Your task to perform on an android device: add a contact in the contacts app Image 0: 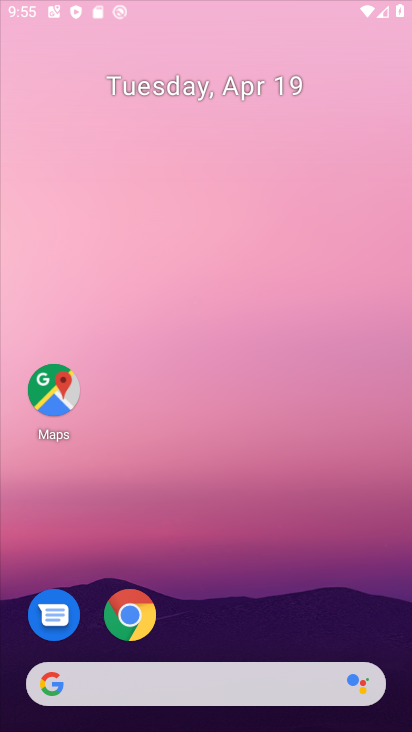
Step 0: drag from (337, 217) to (345, 87)
Your task to perform on an android device: add a contact in the contacts app Image 1: 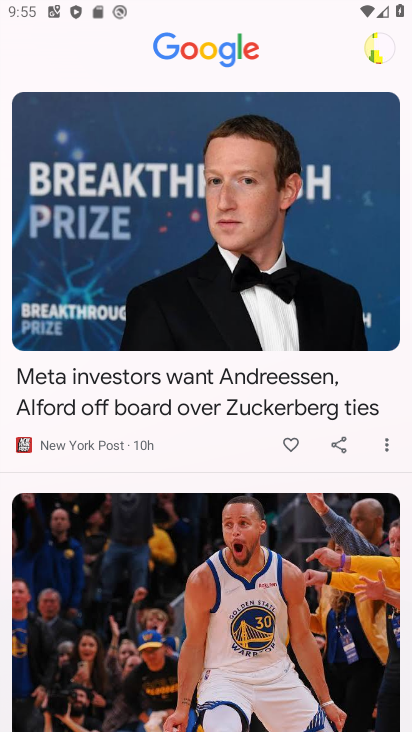
Step 1: drag from (216, 635) to (318, 134)
Your task to perform on an android device: add a contact in the contacts app Image 2: 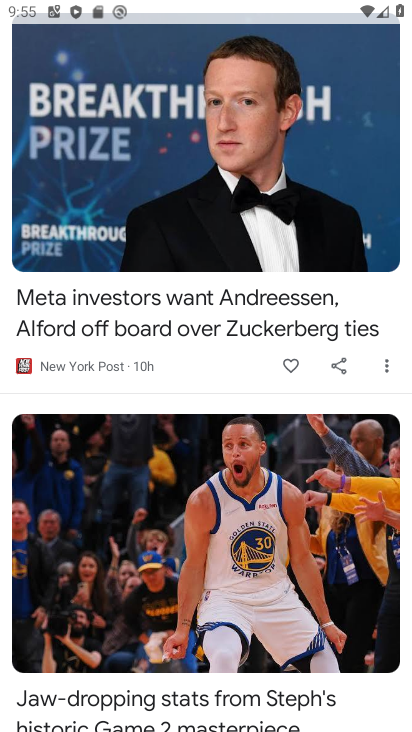
Step 2: drag from (280, 170) to (344, 726)
Your task to perform on an android device: add a contact in the contacts app Image 3: 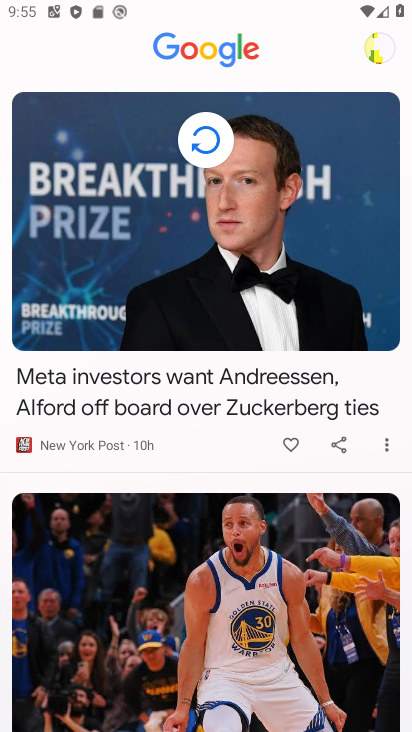
Step 3: press home button
Your task to perform on an android device: add a contact in the contacts app Image 4: 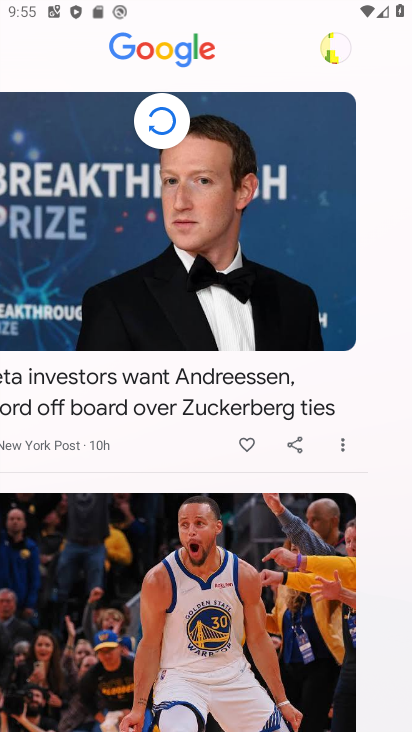
Step 4: click (412, 448)
Your task to perform on an android device: add a contact in the contacts app Image 5: 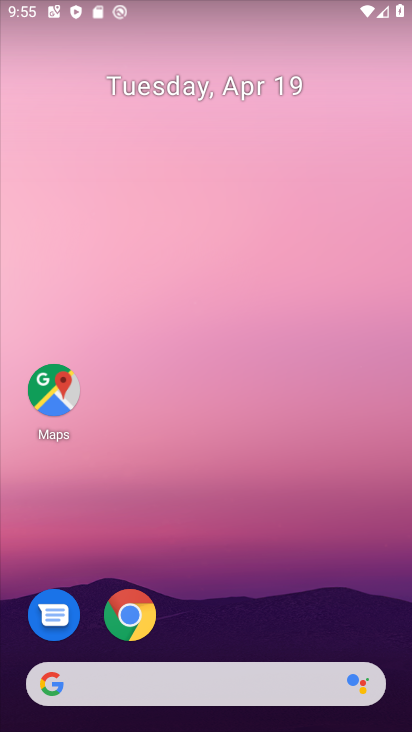
Step 5: drag from (236, 644) to (380, 74)
Your task to perform on an android device: add a contact in the contacts app Image 6: 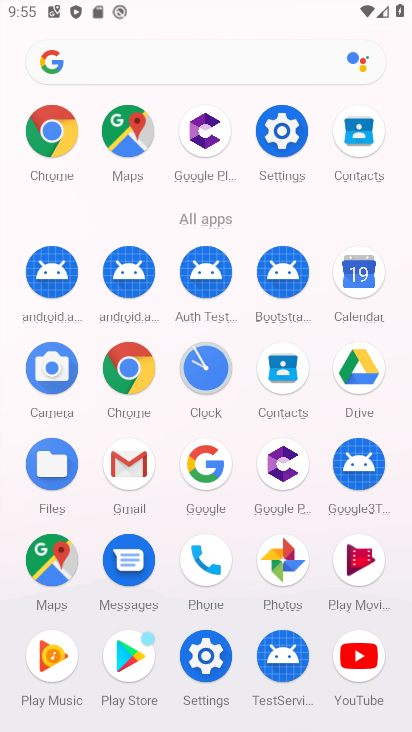
Step 6: click (286, 363)
Your task to perform on an android device: add a contact in the contacts app Image 7: 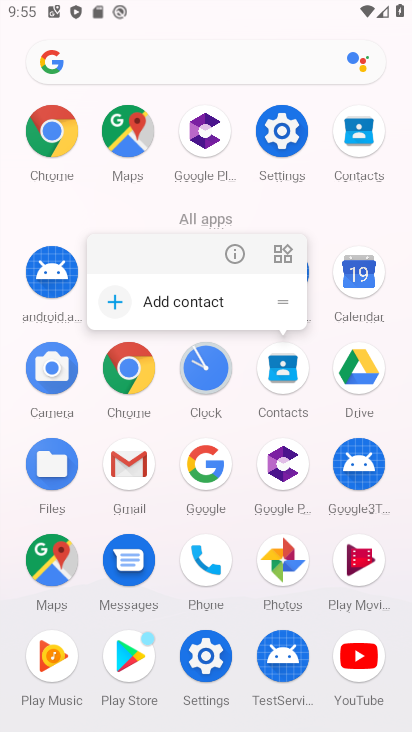
Step 7: click (242, 257)
Your task to perform on an android device: add a contact in the contacts app Image 8: 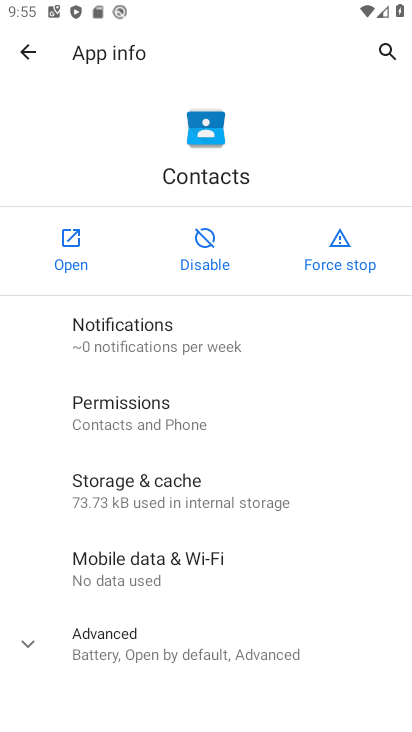
Step 8: click (87, 262)
Your task to perform on an android device: add a contact in the contacts app Image 9: 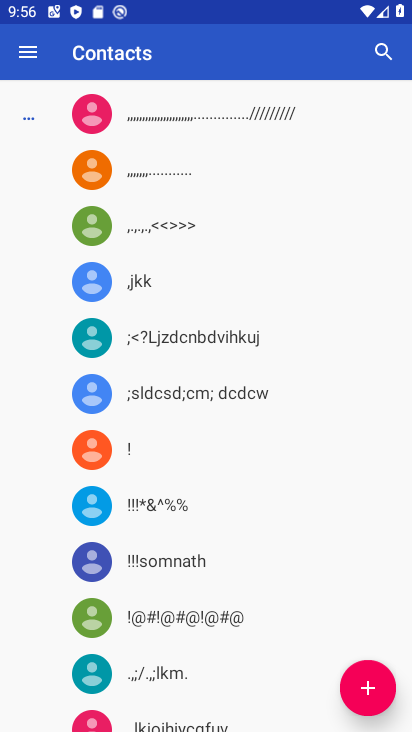
Step 9: click (362, 662)
Your task to perform on an android device: add a contact in the contacts app Image 10: 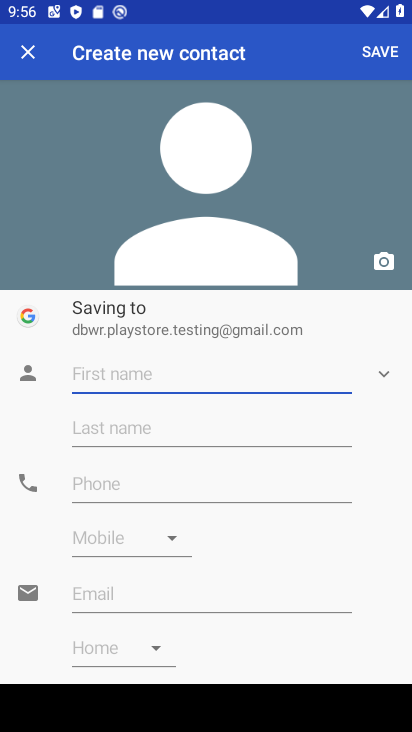
Step 10: click (148, 369)
Your task to perform on an android device: add a contact in the contacts app Image 11: 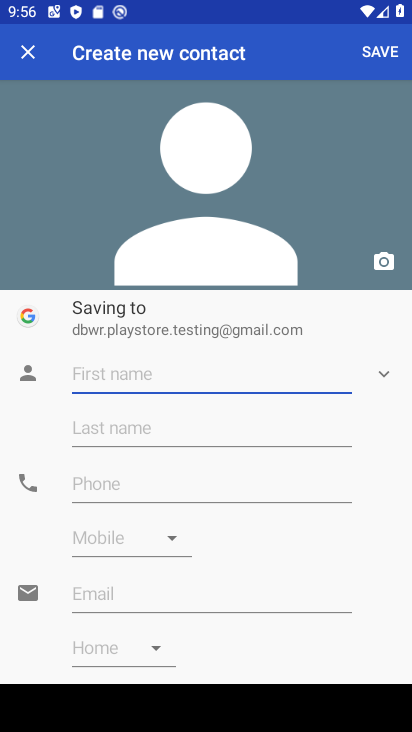
Step 11: click (157, 366)
Your task to perform on an android device: add a contact in the contacts app Image 12: 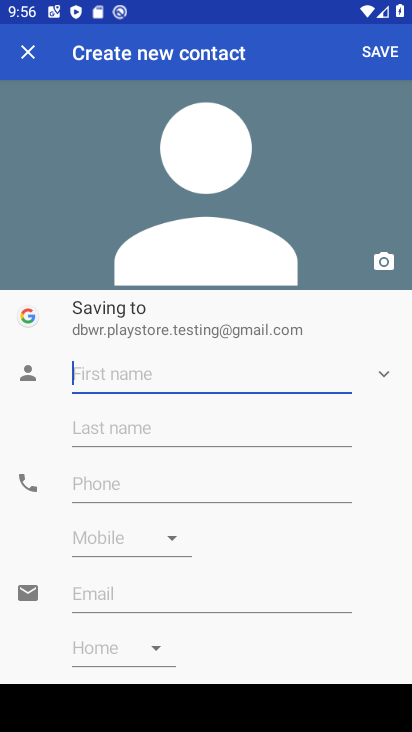
Step 12: click (92, 369)
Your task to perform on an android device: add a contact in the contacts app Image 13: 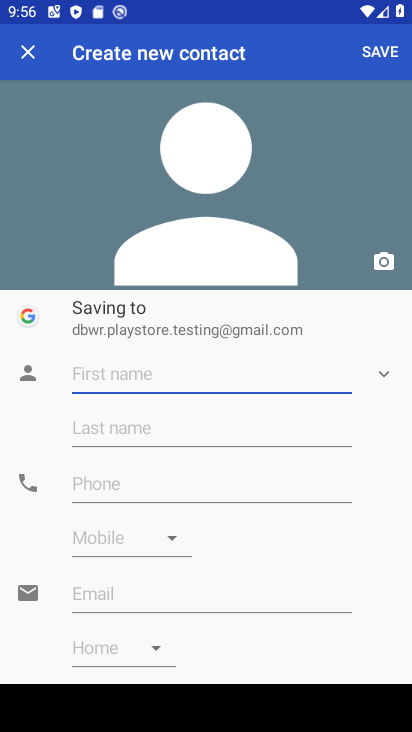
Step 13: type "hgfj"
Your task to perform on an android device: add a contact in the contacts app Image 14: 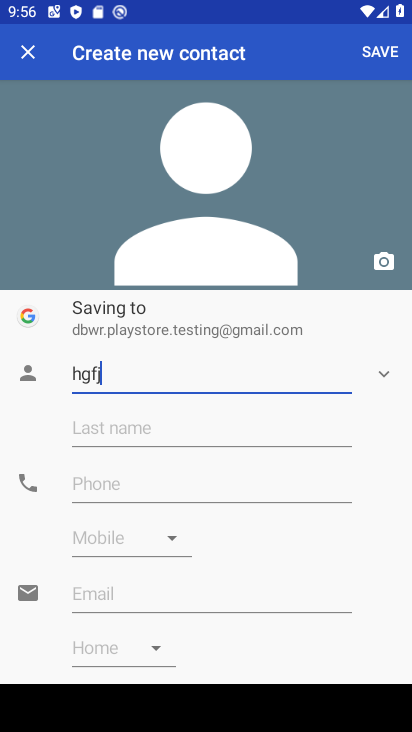
Step 14: click (388, 57)
Your task to perform on an android device: add a contact in the contacts app Image 15: 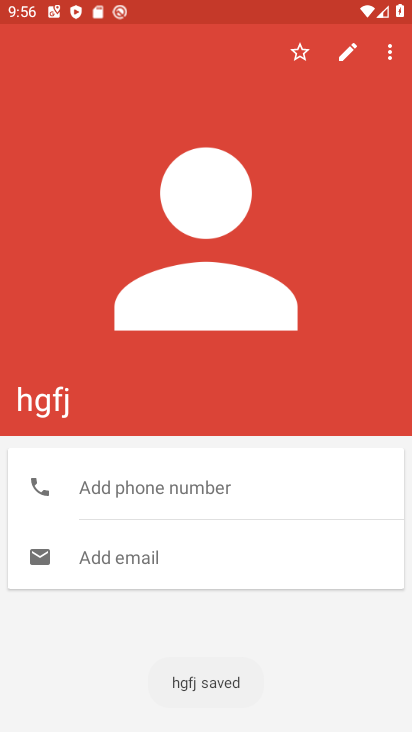
Step 15: task complete